Your task to perform on an android device: change notification settings in the gmail app Image 0: 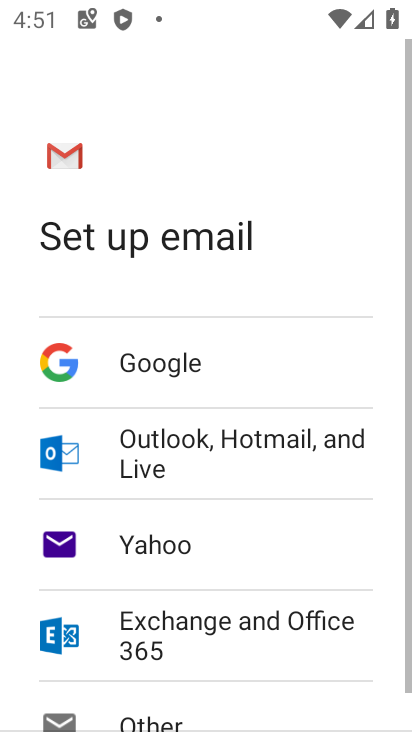
Step 0: press back button
Your task to perform on an android device: change notification settings in the gmail app Image 1: 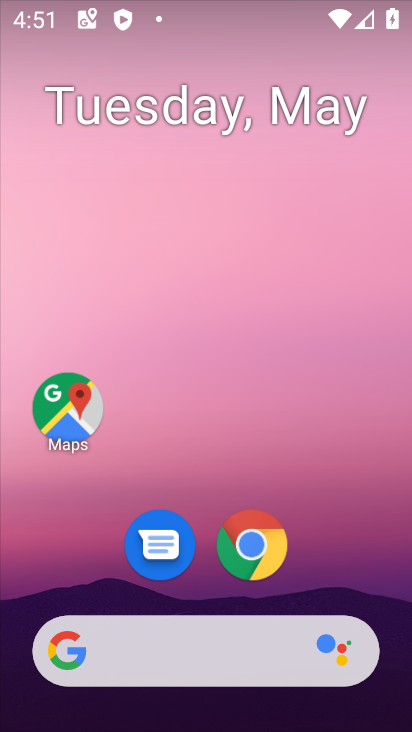
Step 1: drag from (339, 568) to (232, 1)
Your task to perform on an android device: change notification settings in the gmail app Image 2: 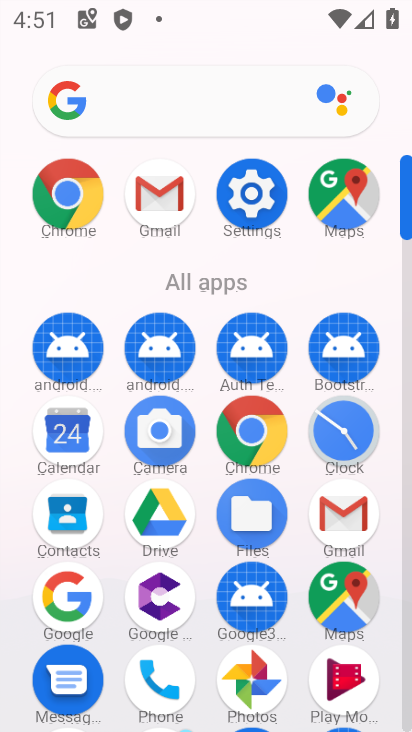
Step 2: drag from (17, 480) to (23, 253)
Your task to perform on an android device: change notification settings in the gmail app Image 3: 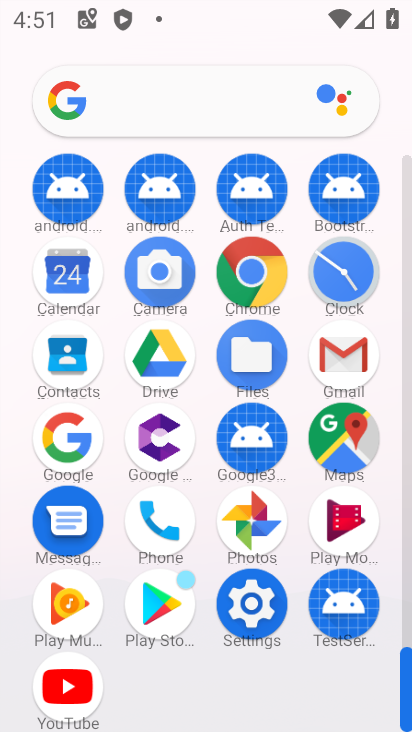
Step 3: click (346, 352)
Your task to perform on an android device: change notification settings in the gmail app Image 4: 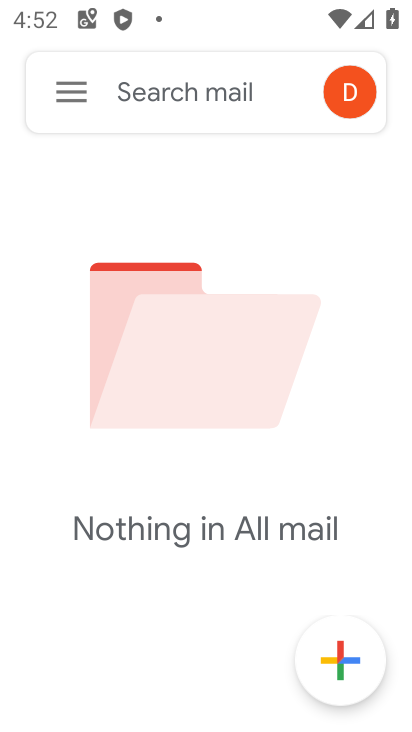
Step 4: click (79, 86)
Your task to perform on an android device: change notification settings in the gmail app Image 5: 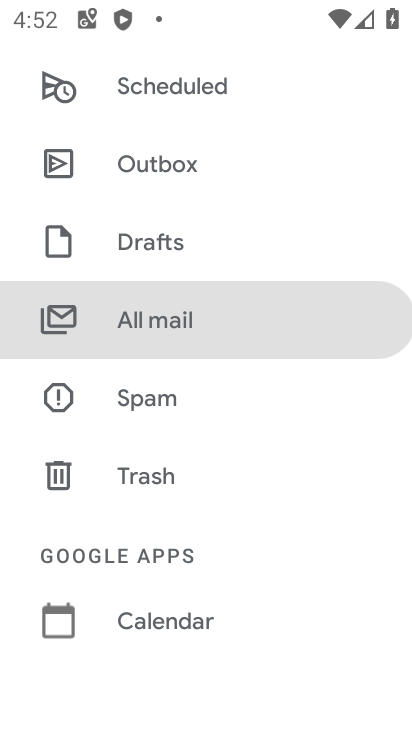
Step 5: drag from (215, 122) to (289, 631)
Your task to perform on an android device: change notification settings in the gmail app Image 6: 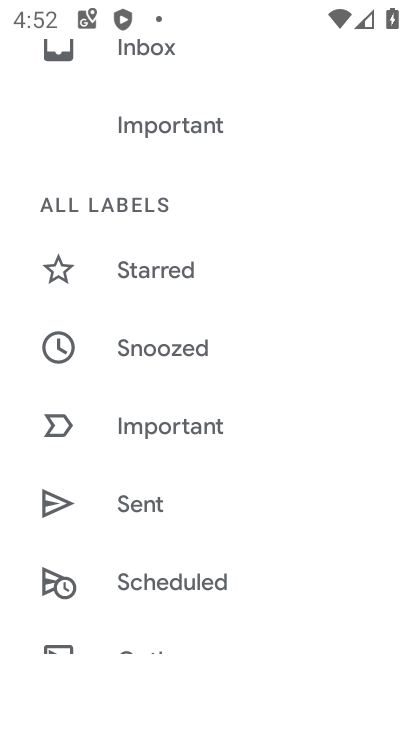
Step 6: drag from (290, 195) to (273, 501)
Your task to perform on an android device: change notification settings in the gmail app Image 7: 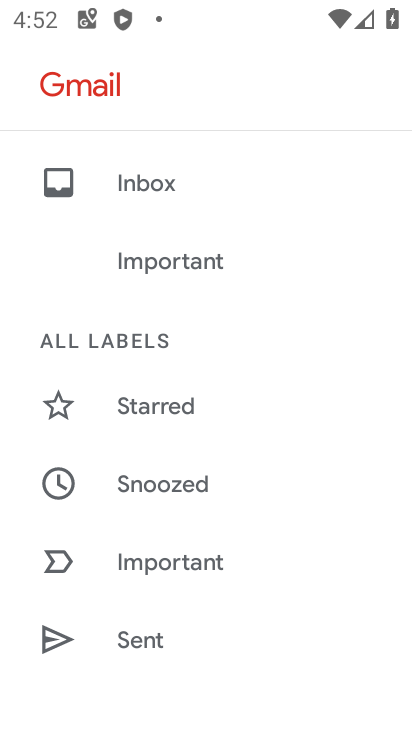
Step 7: drag from (196, 527) to (227, 114)
Your task to perform on an android device: change notification settings in the gmail app Image 8: 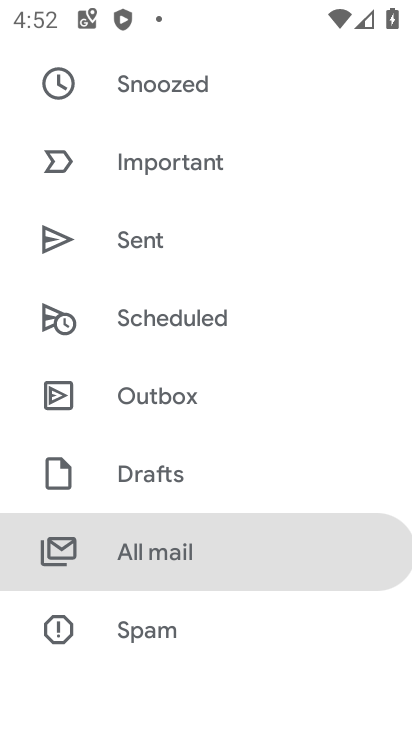
Step 8: drag from (128, 596) to (205, 151)
Your task to perform on an android device: change notification settings in the gmail app Image 9: 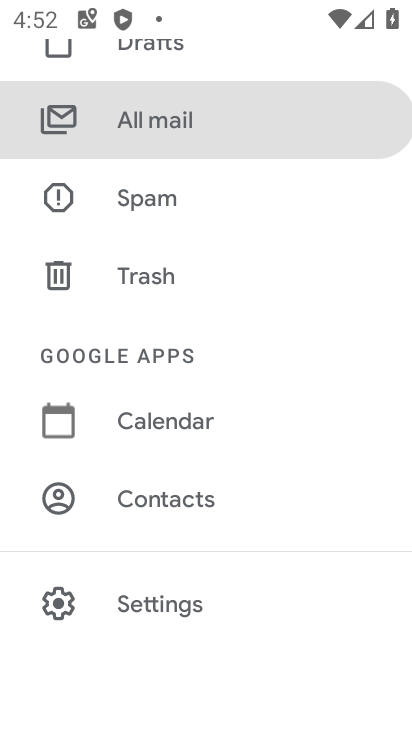
Step 9: click (151, 595)
Your task to perform on an android device: change notification settings in the gmail app Image 10: 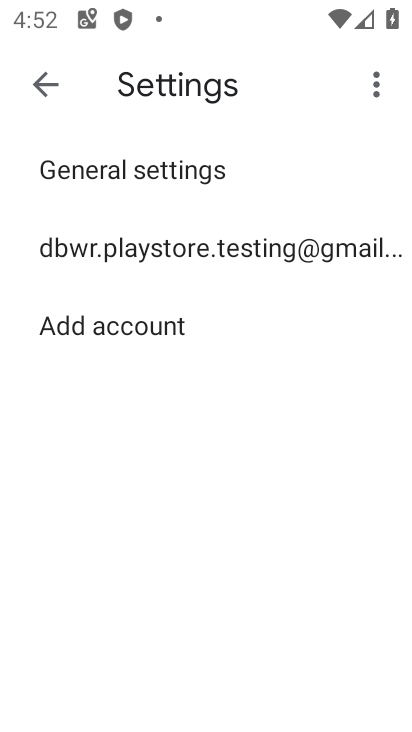
Step 10: click (151, 251)
Your task to perform on an android device: change notification settings in the gmail app Image 11: 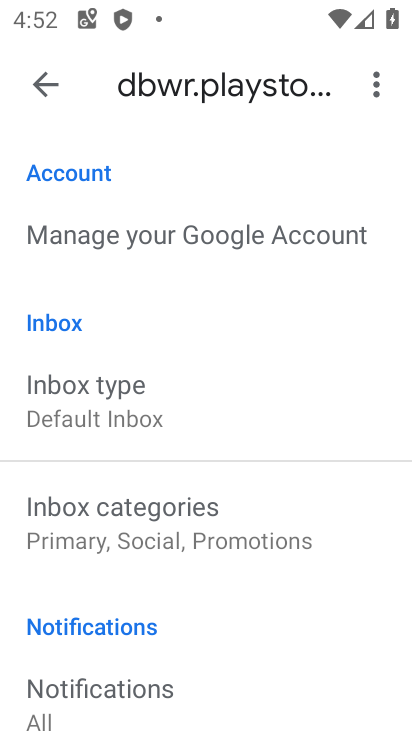
Step 11: drag from (205, 557) to (262, 216)
Your task to perform on an android device: change notification settings in the gmail app Image 12: 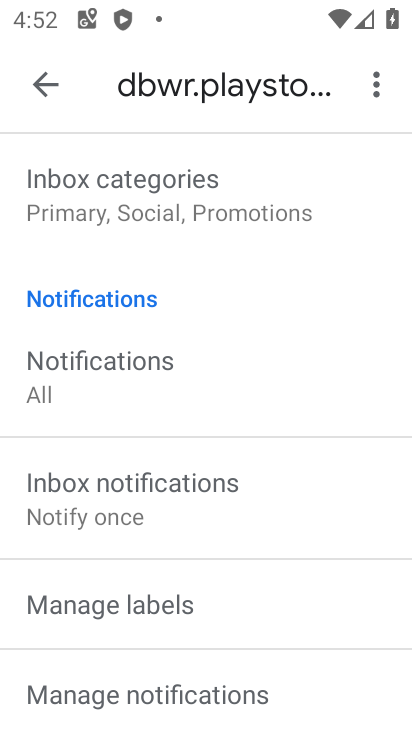
Step 12: drag from (235, 626) to (260, 283)
Your task to perform on an android device: change notification settings in the gmail app Image 13: 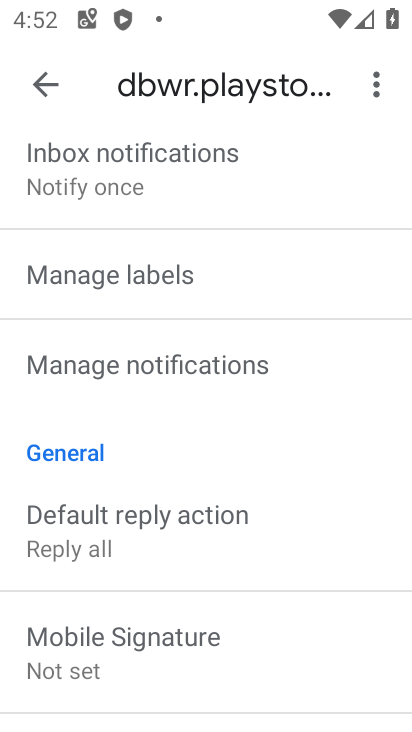
Step 13: drag from (251, 576) to (272, 217)
Your task to perform on an android device: change notification settings in the gmail app Image 14: 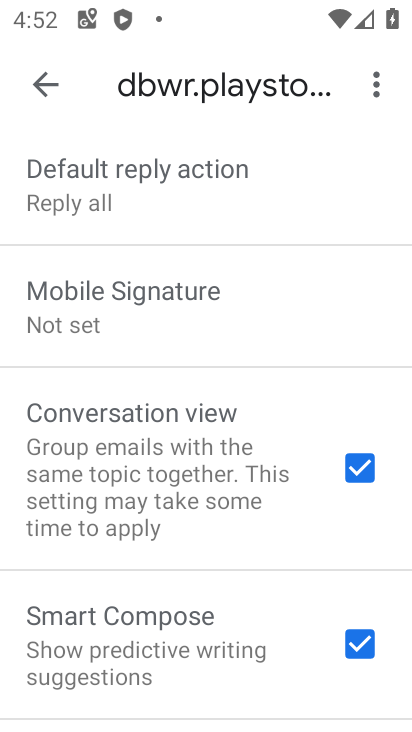
Step 14: drag from (193, 580) to (237, 178)
Your task to perform on an android device: change notification settings in the gmail app Image 15: 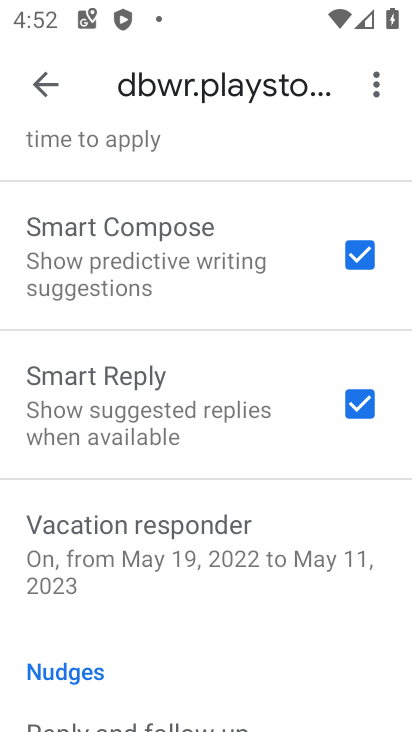
Step 15: drag from (240, 584) to (257, 200)
Your task to perform on an android device: change notification settings in the gmail app Image 16: 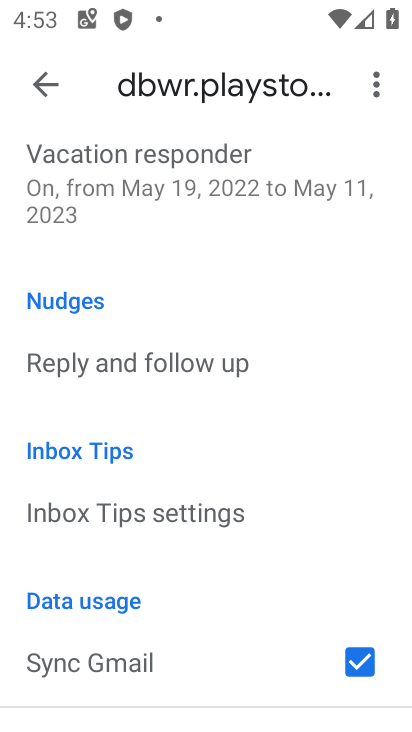
Step 16: drag from (259, 600) to (261, 121)
Your task to perform on an android device: change notification settings in the gmail app Image 17: 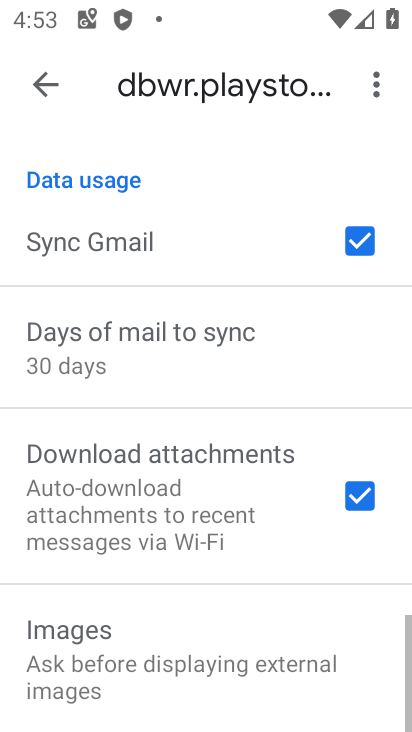
Step 17: drag from (256, 159) to (236, 636)
Your task to perform on an android device: change notification settings in the gmail app Image 18: 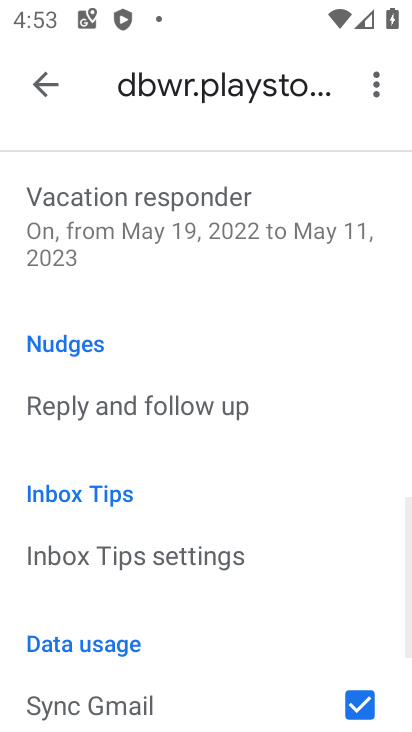
Step 18: drag from (250, 248) to (247, 593)
Your task to perform on an android device: change notification settings in the gmail app Image 19: 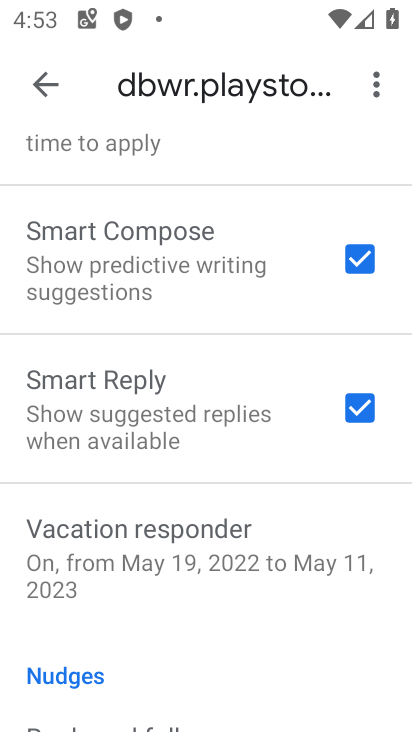
Step 19: drag from (274, 254) to (245, 621)
Your task to perform on an android device: change notification settings in the gmail app Image 20: 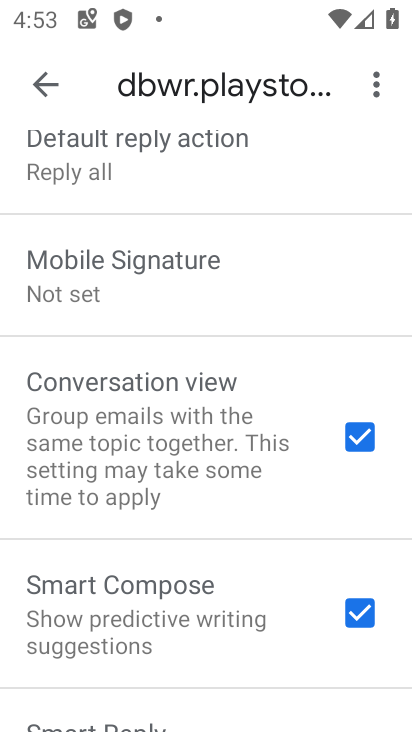
Step 20: drag from (228, 198) to (190, 516)
Your task to perform on an android device: change notification settings in the gmail app Image 21: 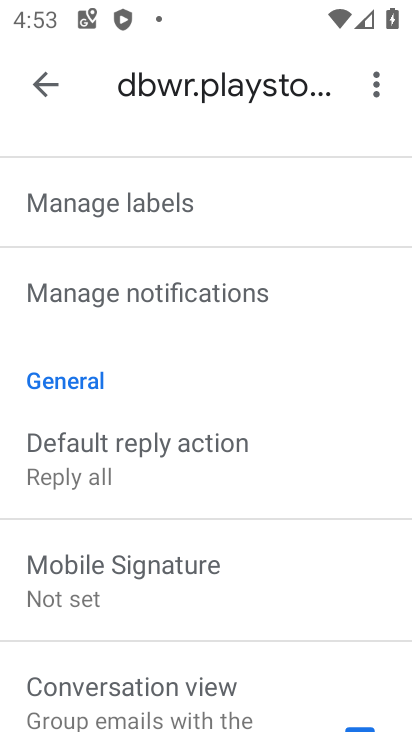
Step 21: click (173, 294)
Your task to perform on an android device: change notification settings in the gmail app Image 22: 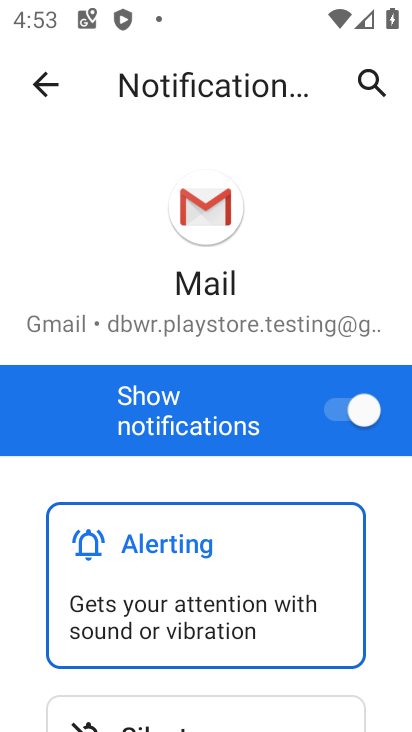
Step 22: click (355, 416)
Your task to perform on an android device: change notification settings in the gmail app Image 23: 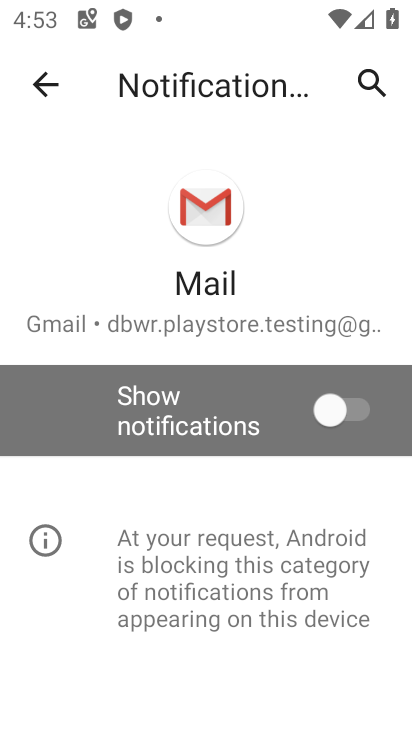
Step 23: task complete